Your task to perform on an android device: Open eBay Image 0: 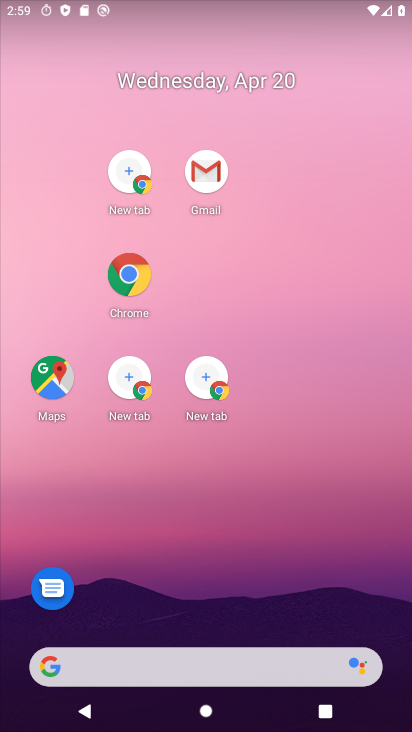
Step 0: click (54, 377)
Your task to perform on an android device: Open eBay Image 1: 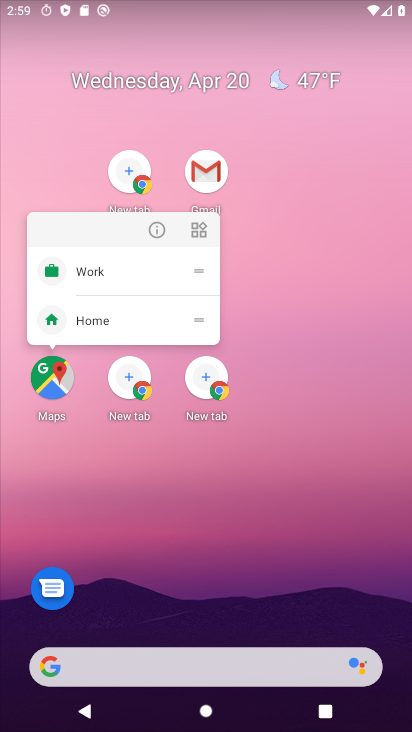
Step 1: click (213, 445)
Your task to perform on an android device: Open eBay Image 2: 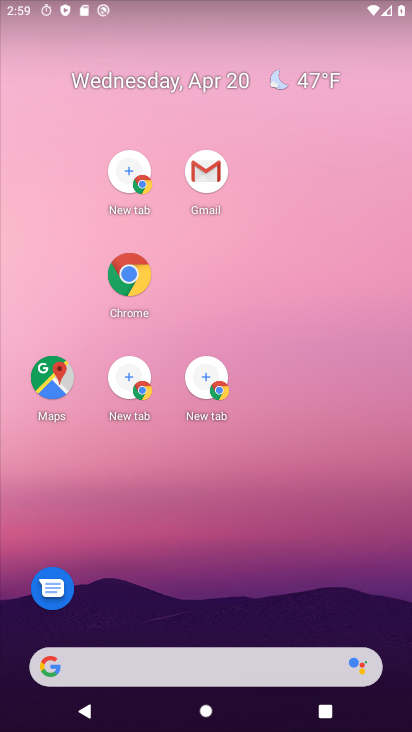
Step 2: click (121, 282)
Your task to perform on an android device: Open eBay Image 3: 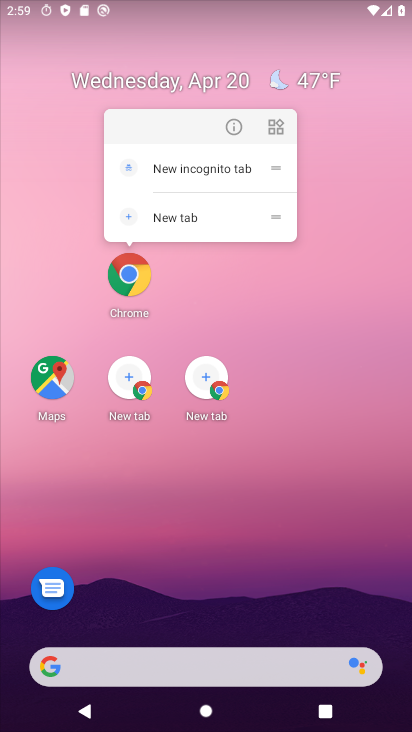
Step 3: click (118, 258)
Your task to perform on an android device: Open eBay Image 4: 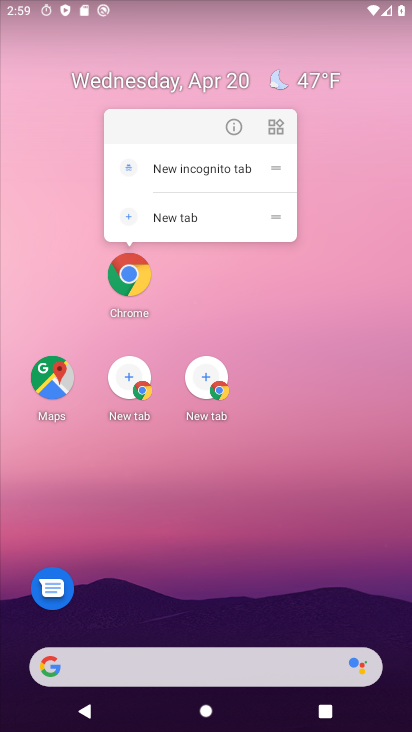
Step 4: click (118, 258)
Your task to perform on an android device: Open eBay Image 5: 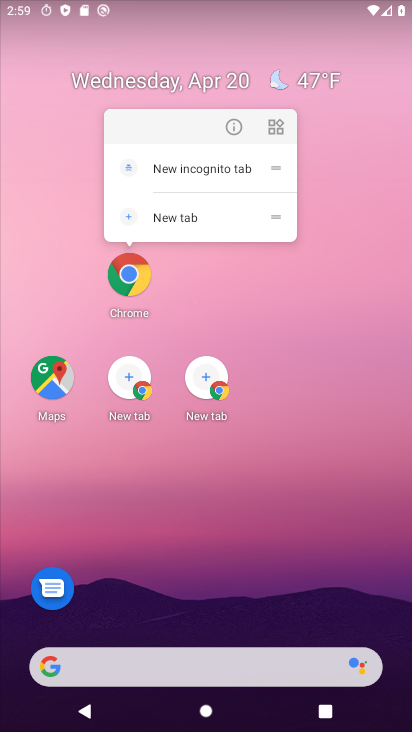
Step 5: click (121, 261)
Your task to perform on an android device: Open eBay Image 6: 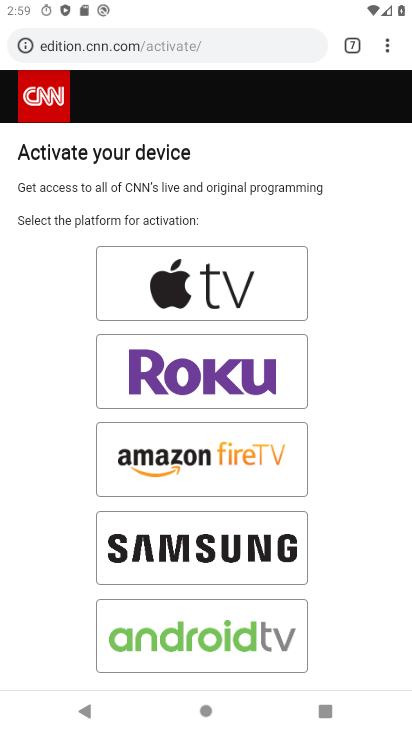
Step 6: drag from (392, 40) to (270, 376)
Your task to perform on an android device: Open eBay Image 7: 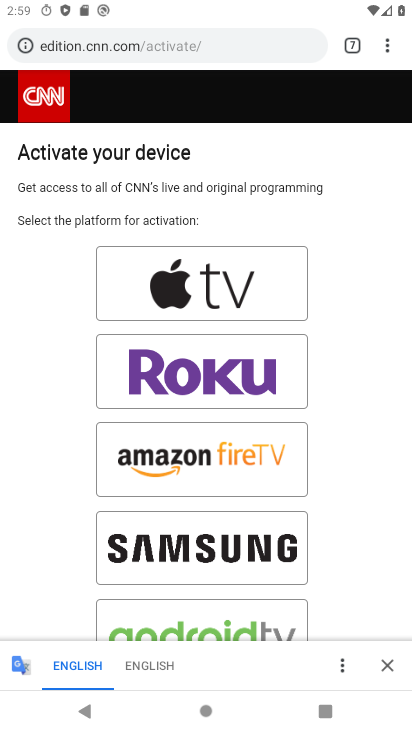
Step 7: drag from (387, 37) to (228, 140)
Your task to perform on an android device: Open eBay Image 8: 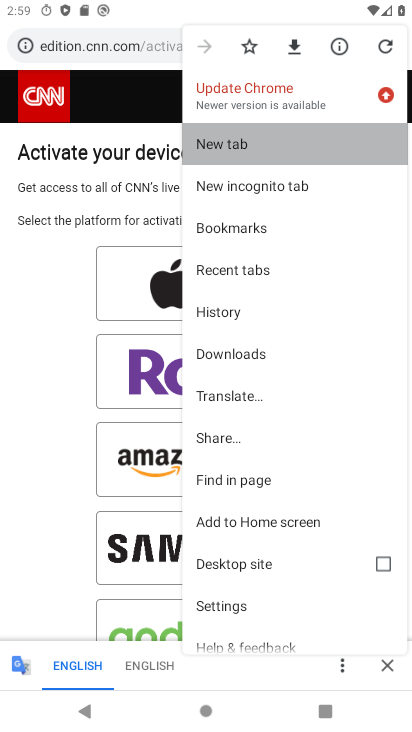
Step 8: click (228, 140)
Your task to perform on an android device: Open eBay Image 9: 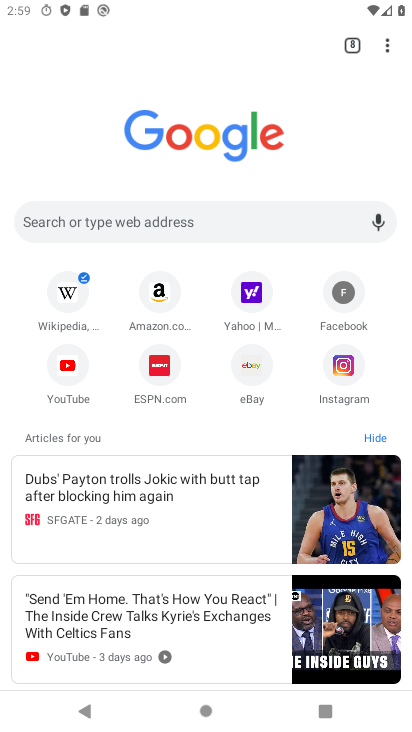
Step 9: click (227, 315)
Your task to perform on an android device: Open eBay Image 10: 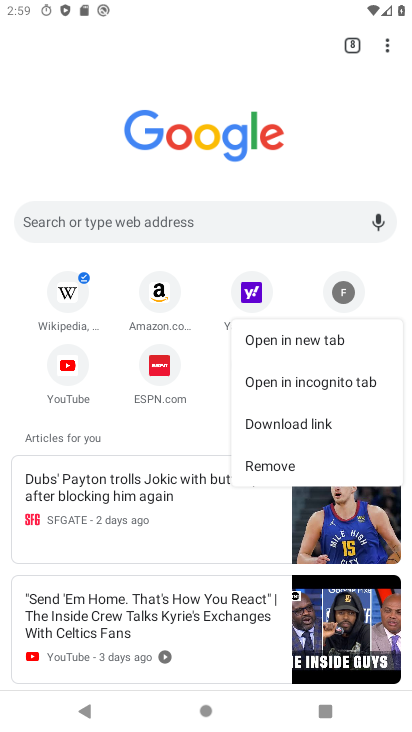
Step 10: click (208, 291)
Your task to perform on an android device: Open eBay Image 11: 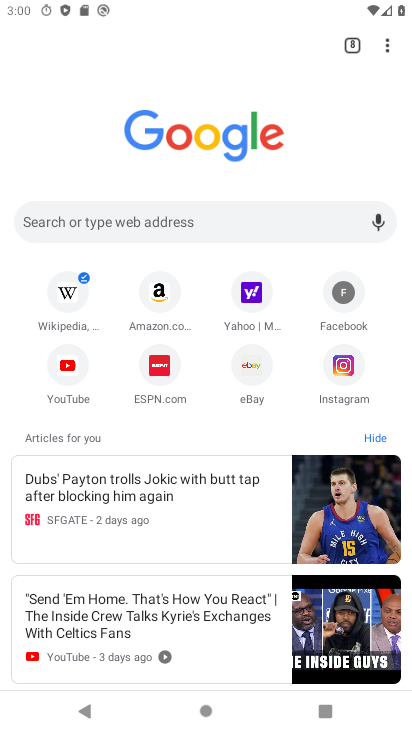
Step 11: click (263, 369)
Your task to perform on an android device: Open eBay Image 12: 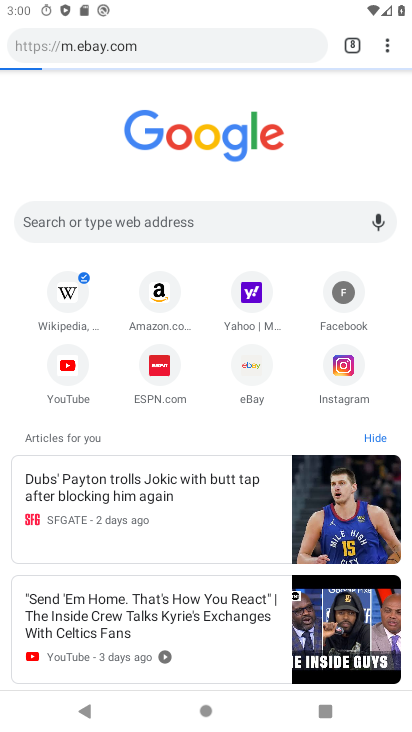
Step 12: click (263, 369)
Your task to perform on an android device: Open eBay Image 13: 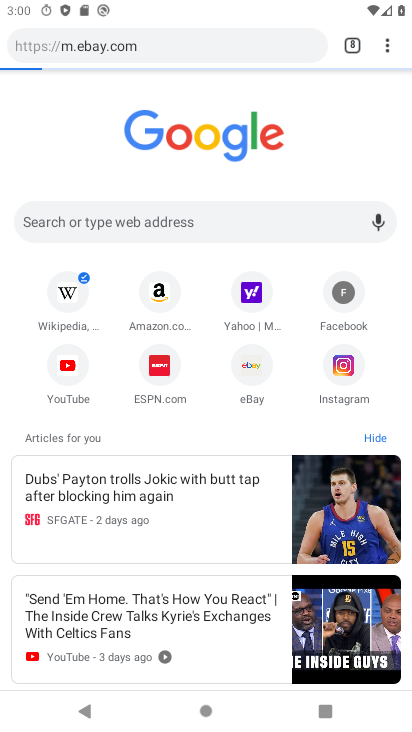
Step 13: click (263, 369)
Your task to perform on an android device: Open eBay Image 14: 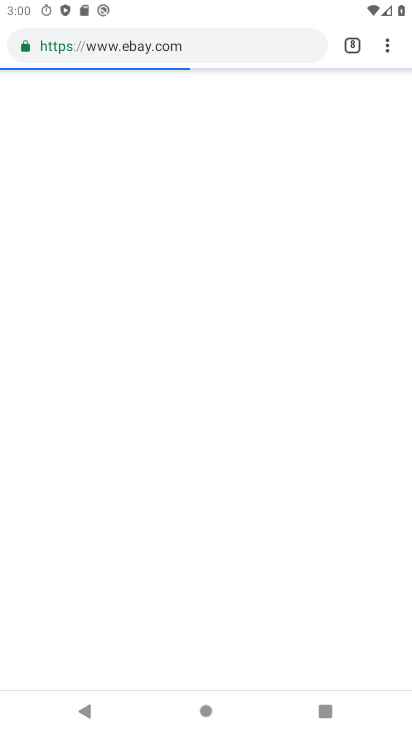
Step 14: click (263, 369)
Your task to perform on an android device: Open eBay Image 15: 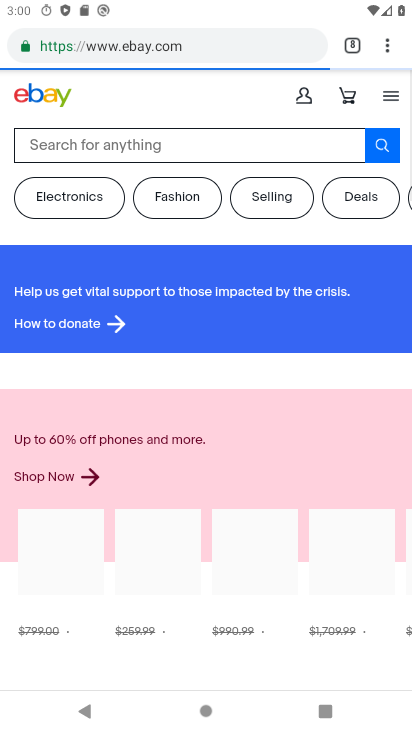
Step 15: click (263, 369)
Your task to perform on an android device: Open eBay Image 16: 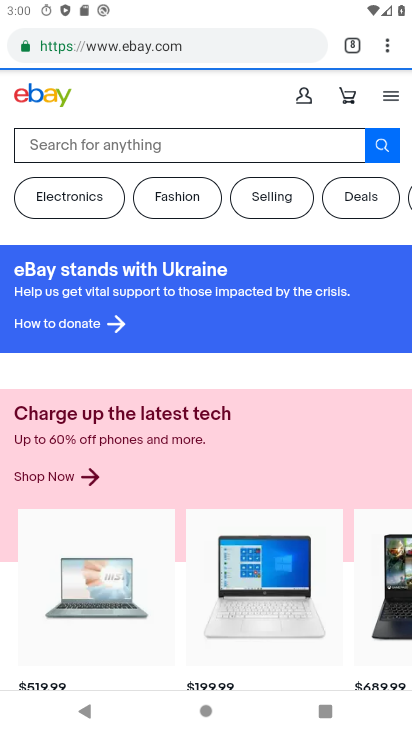
Step 16: click (263, 369)
Your task to perform on an android device: Open eBay Image 17: 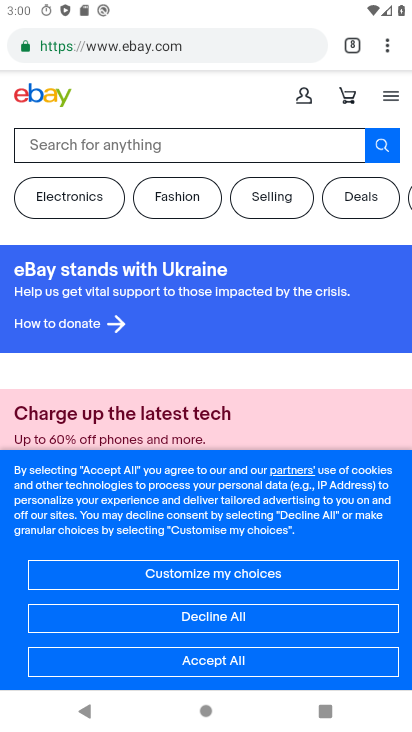
Step 17: task complete